Your task to perform on an android device: Toggle the flashlight Image 0: 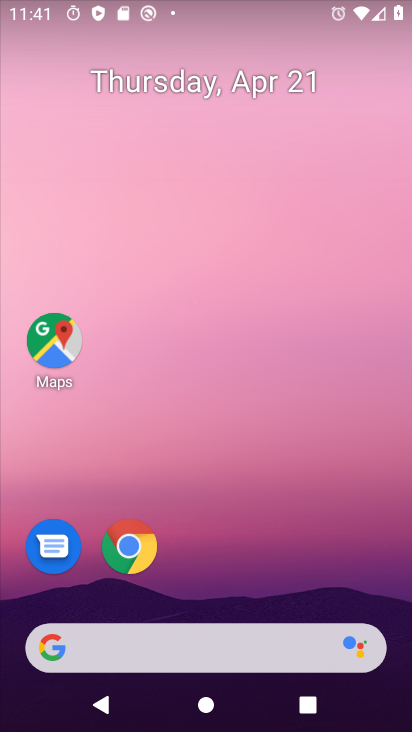
Step 0: drag from (259, 545) to (285, 85)
Your task to perform on an android device: Toggle the flashlight Image 1: 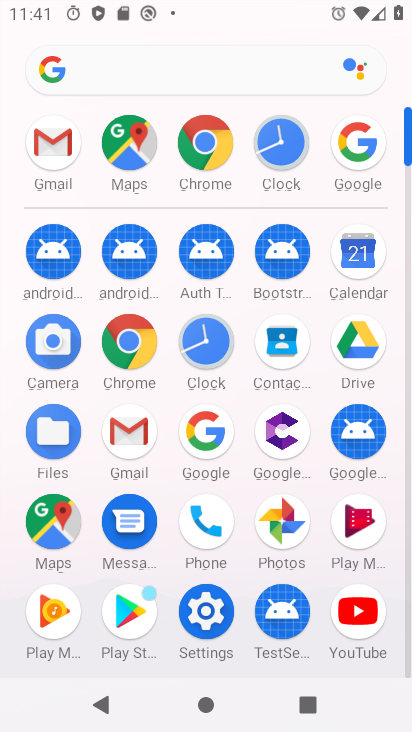
Step 1: click (204, 599)
Your task to perform on an android device: Toggle the flashlight Image 2: 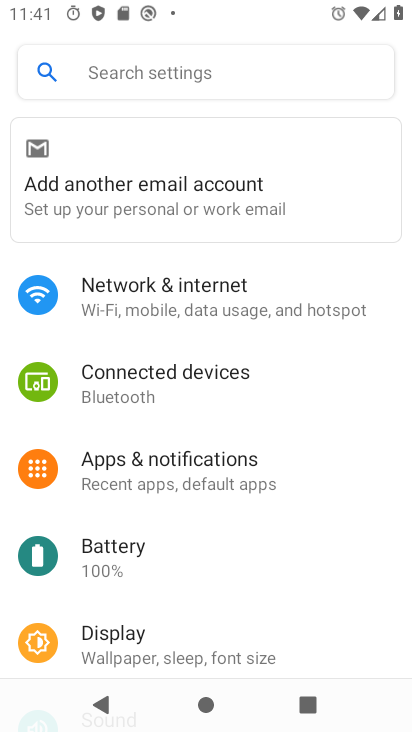
Step 2: click (193, 63)
Your task to perform on an android device: Toggle the flashlight Image 3: 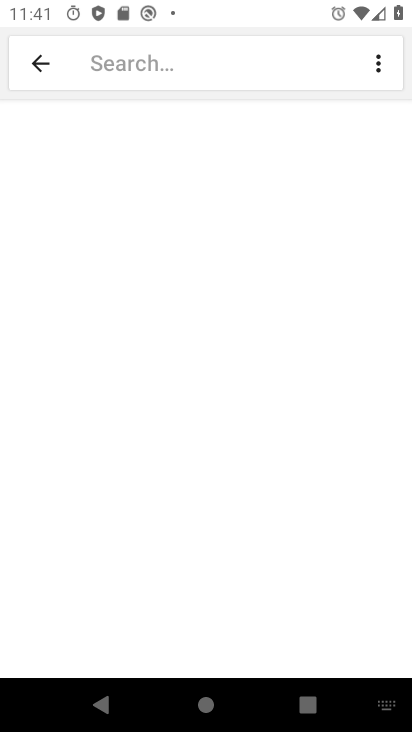
Step 3: type "flash"
Your task to perform on an android device: Toggle the flashlight Image 4: 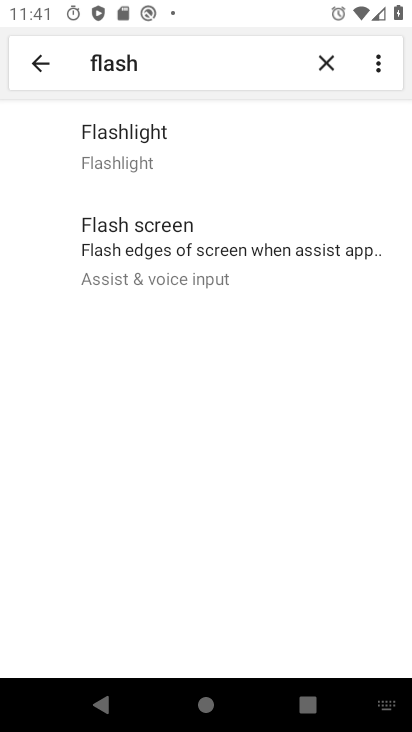
Step 4: task complete